Your task to perform on an android device: Open privacy settings Image 0: 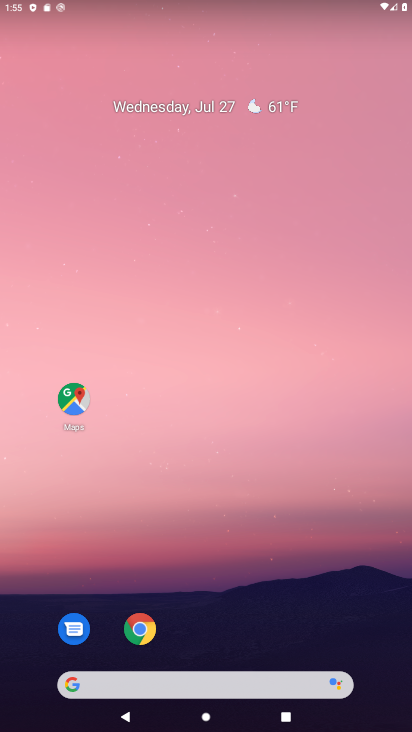
Step 0: drag from (202, 676) to (143, 138)
Your task to perform on an android device: Open privacy settings Image 1: 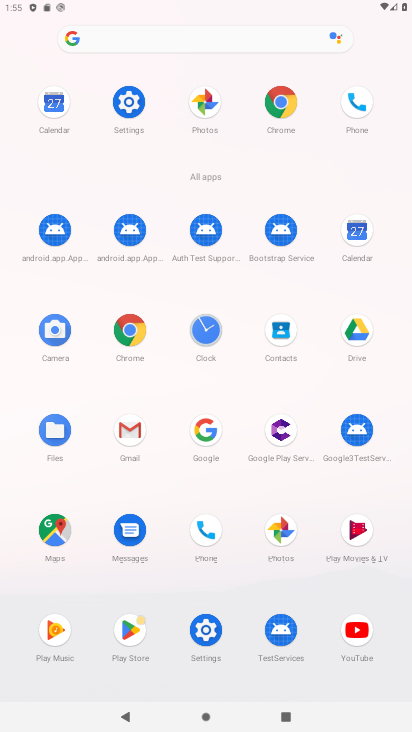
Step 1: click (130, 100)
Your task to perform on an android device: Open privacy settings Image 2: 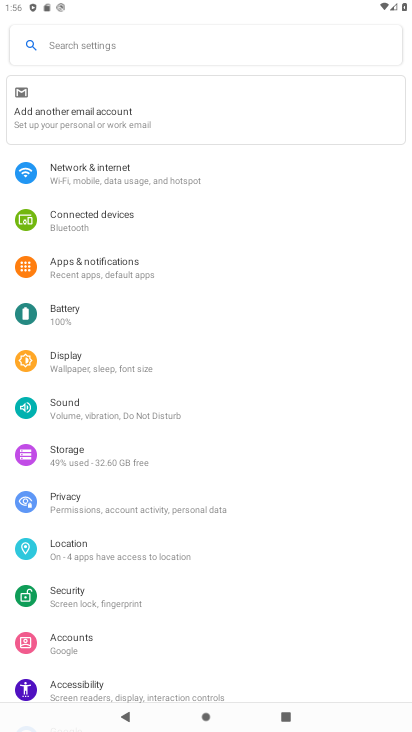
Step 2: click (74, 502)
Your task to perform on an android device: Open privacy settings Image 3: 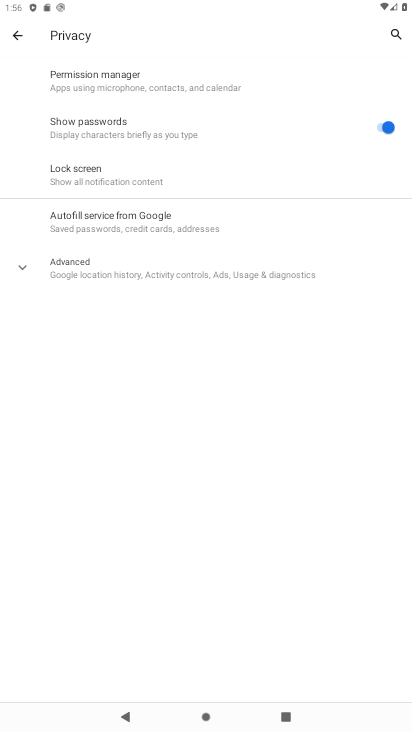
Step 3: task complete